Your task to perform on an android device: all mails in gmail Image 0: 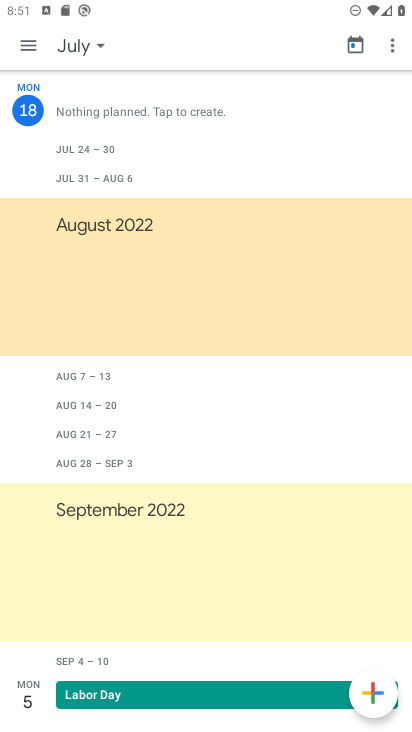
Step 0: press home button
Your task to perform on an android device: all mails in gmail Image 1: 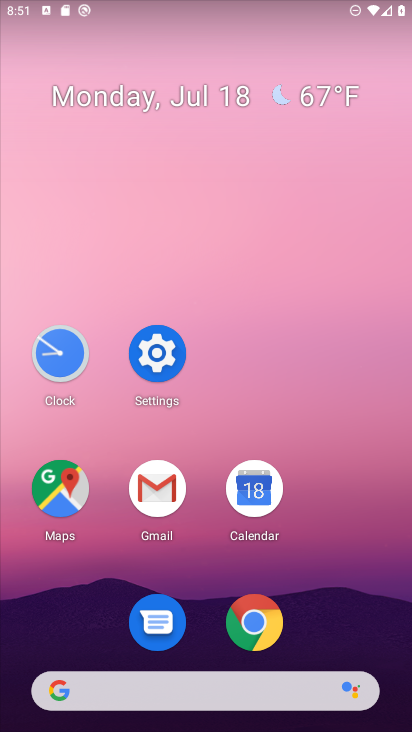
Step 1: click (158, 488)
Your task to perform on an android device: all mails in gmail Image 2: 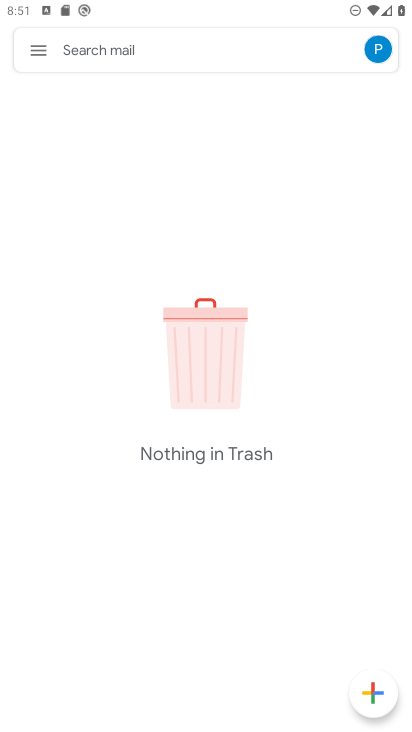
Step 2: click (36, 53)
Your task to perform on an android device: all mails in gmail Image 3: 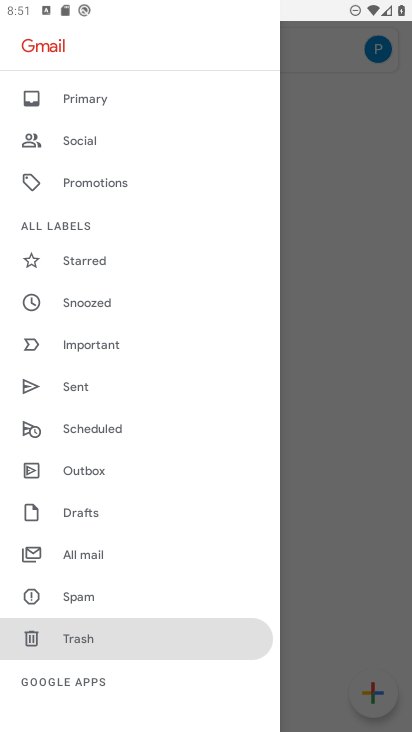
Step 3: click (85, 555)
Your task to perform on an android device: all mails in gmail Image 4: 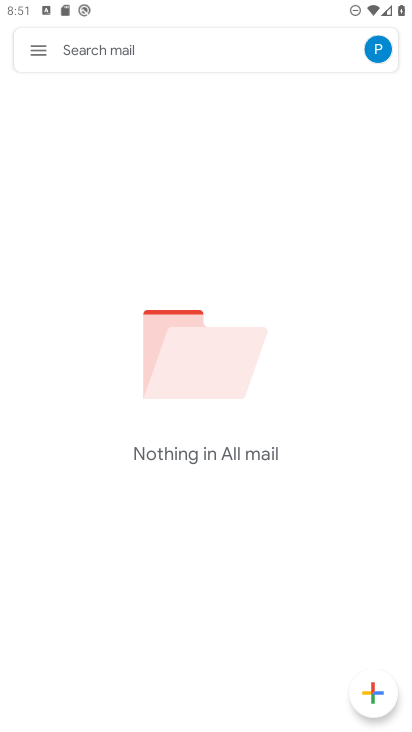
Step 4: task complete